Your task to perform on an android device: Open display settings Image 0: 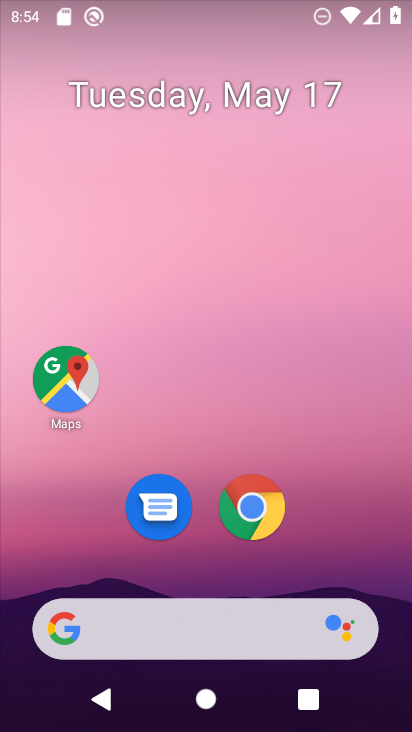
Step 0: drag from (377, 594) to (342, 26)
Your task to perform on an android device: Open display settings Image 1: 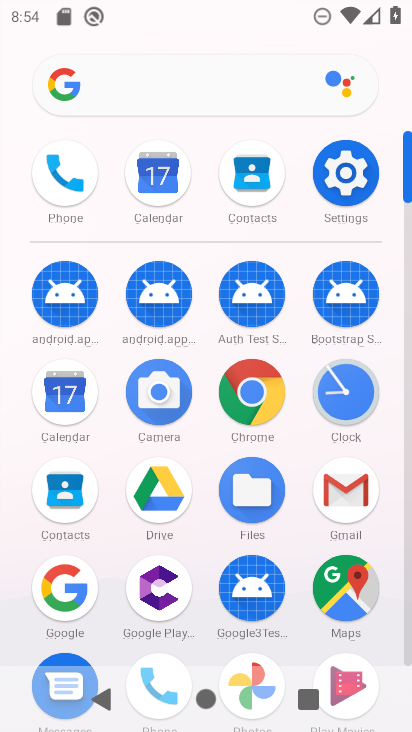
Step 1: click (340, 177)
Your task to perform on an android device: Open display settings Image 2: 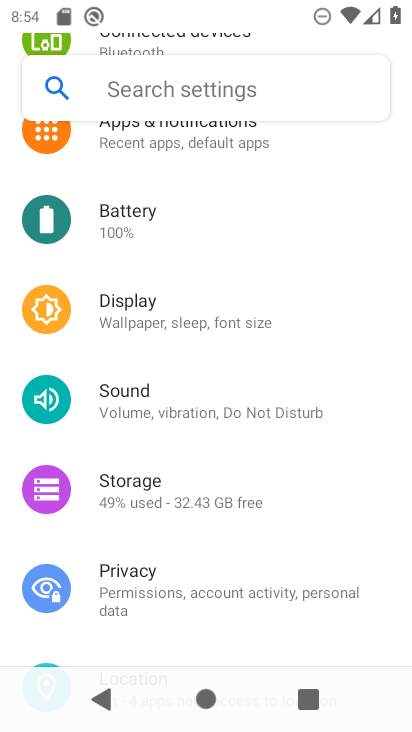
Step 2: click (131, 327)
Your task to perform on an android device: Open display settings Image 3: 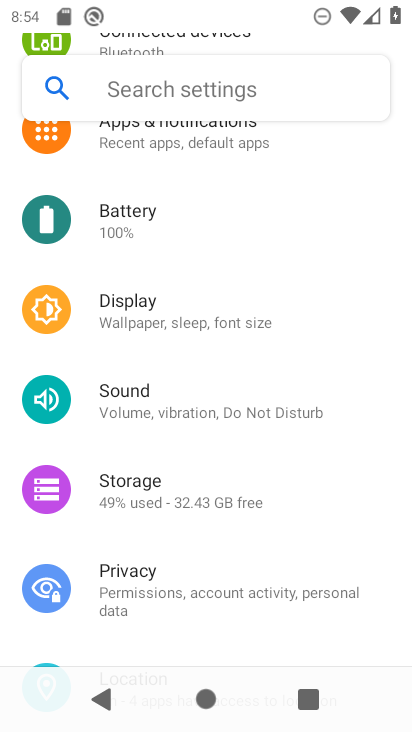
Step 3: click (117, 322)
Your task to perform on an android device: Open display settings Image 4: 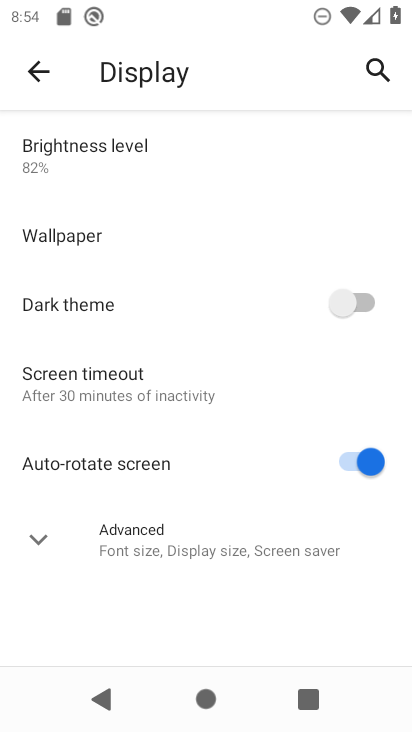
Step 4: task complete